Your task to perform on an android device: Open Yahoo.com Image 0: 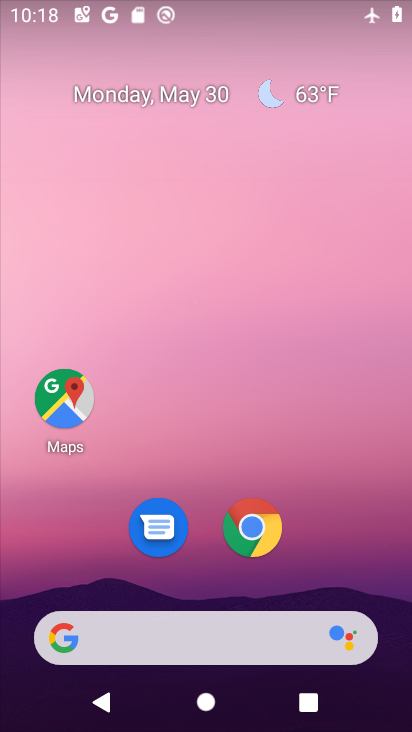
Step 0: drag from (296, 552) to (296, 220)
Your task to perform on an android device: Open Yahoo.com Image 1: 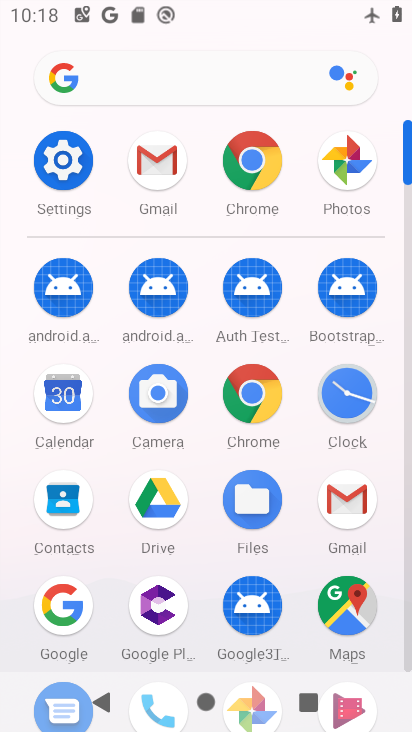
Step 1: click (251, 379)
Your task to perform on an android device: Open Yahoo.com Image 2: 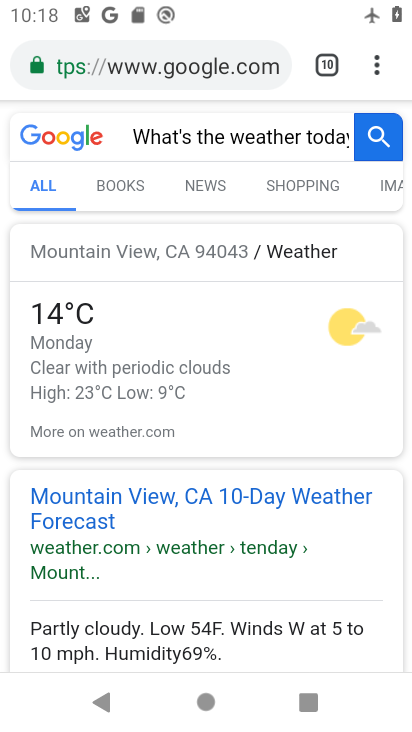
Step 2: click (379, 63)
Your task to perform on an android device: Open Yahoo.com Image 3: 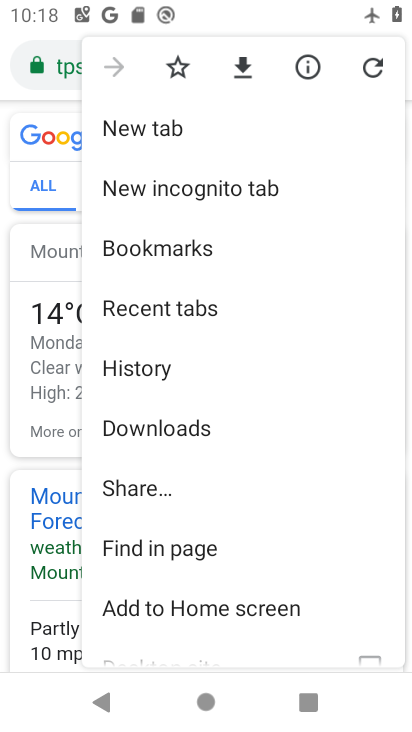
Step 3: drag from (207, 503) to (254, 233)
Your task to perform on an android device: Open Yahoo.com Image 4: 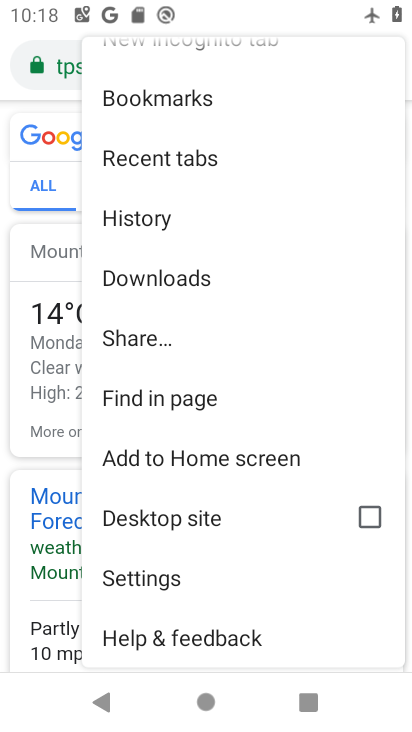
Step 4: click (184, 581)
Your task to perform on an android device: Open Yahoo.com Image 5: 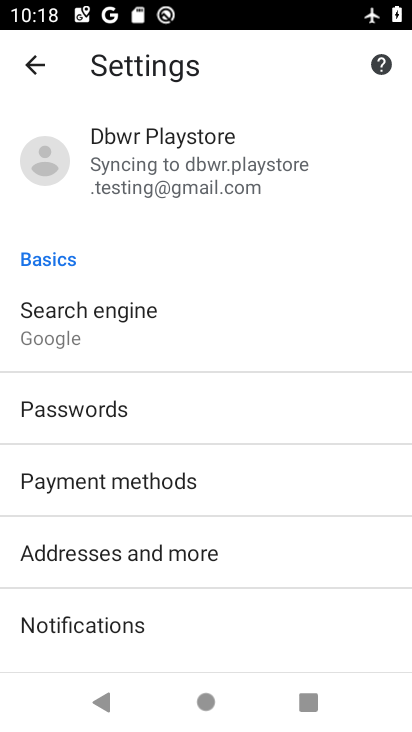
Step 5: click (34, 58)
Your task to perform on an android device: Open Yahoo.com Image 6: 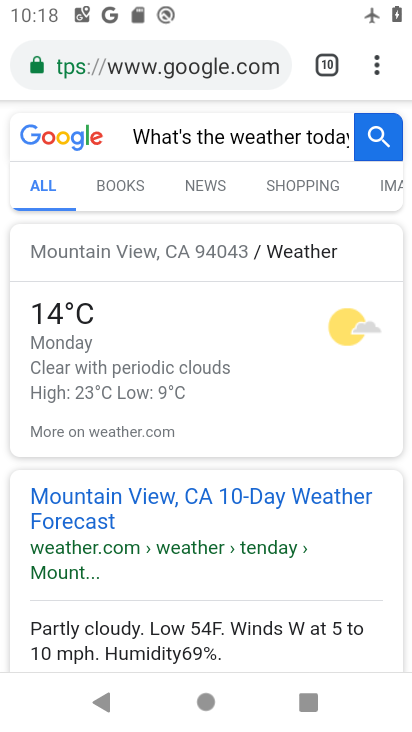
Step 6: click (380, 57)
Your task to perform on an android device: Open Yahoo.com Image 7: 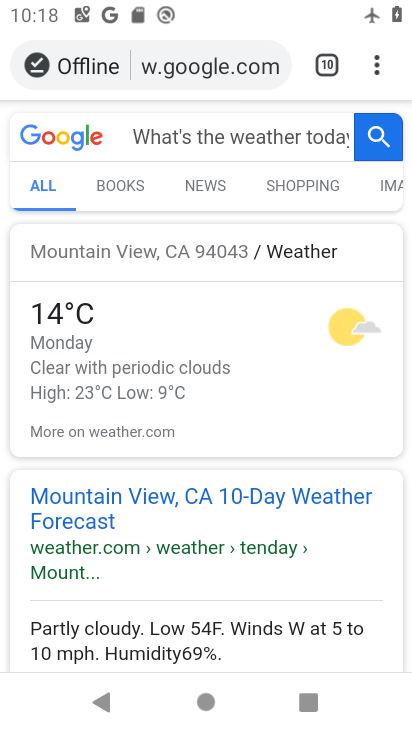
Step 7: click (370, 60)
Your task to perform on an android device: Open Yahoo.com Image 8: 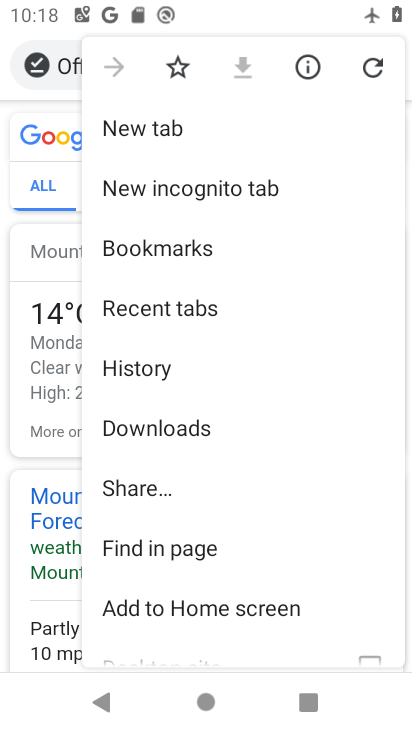
Step 8: click (193, 125)
Your task to perform on an android device: Open Yahoo.com Image 9: 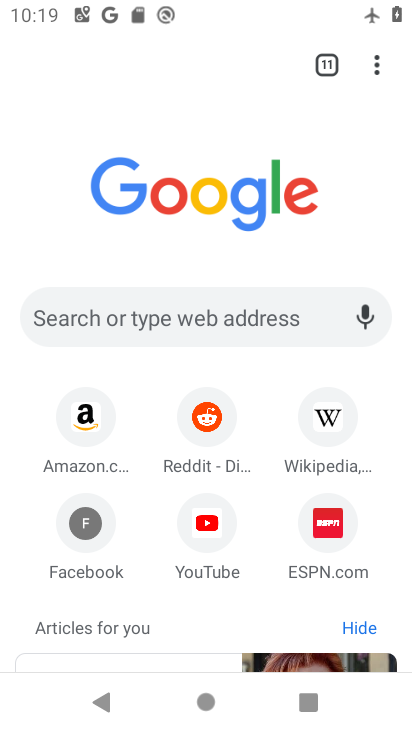
Step 9: click (205, 304)
Your task to perform on an android device: Open Yahoo.com Image 10: 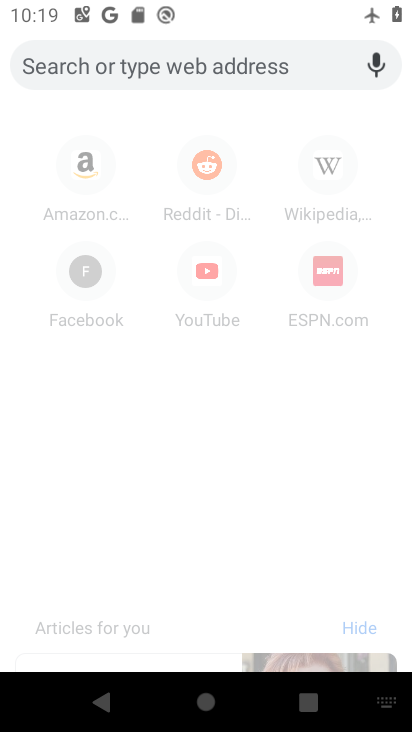
Step 10: type " Yahoo.com"
Your task to perform on an android device: Open Yahoo.com Image 11: 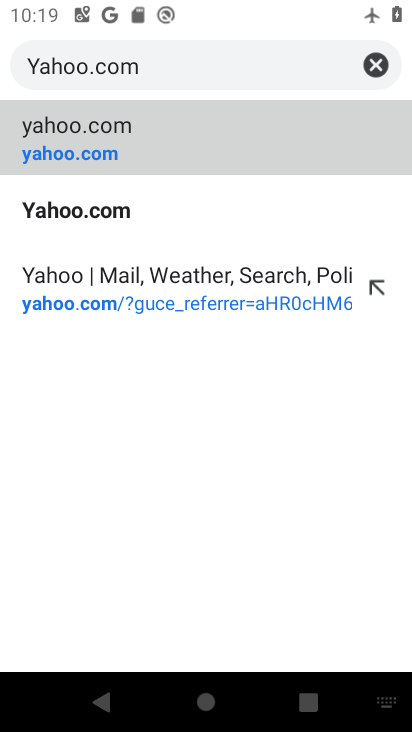
Step 11: click (138, 126)
Your task to perform on an android device: Open Yahoo.com Image 12: 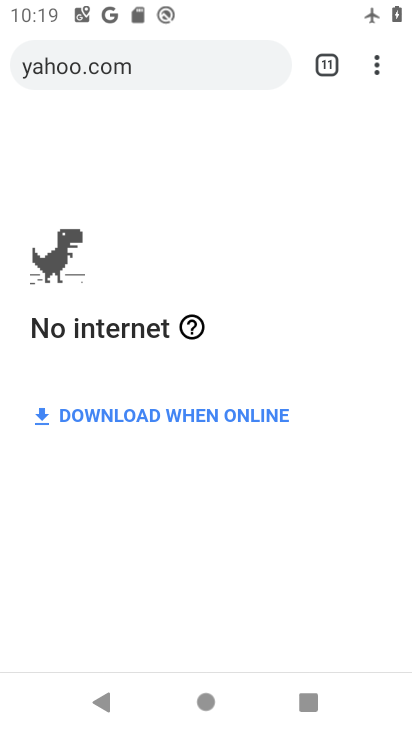
Step 12: task complete